Your task to perform on an android device: Open sound settings Image 0: 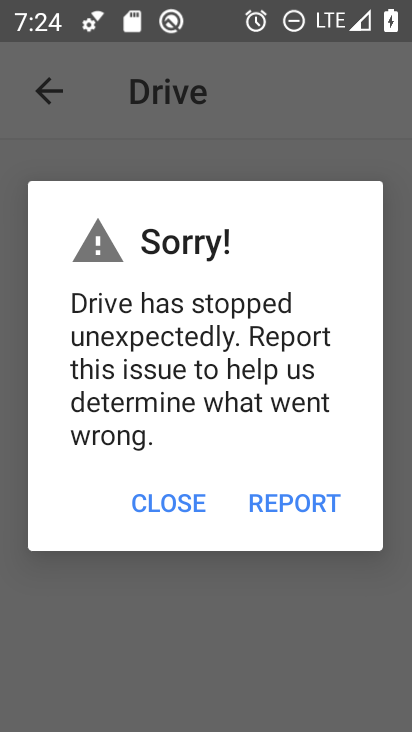
Step 0: press home button
Your task to perform on an android device: Open sound settings Image 1: 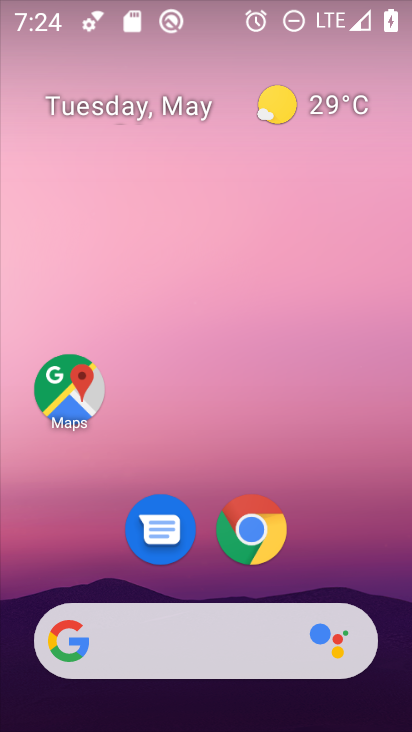
Step 1: drag from (401, 654) to (221, 119)
Your task to perform on an android device: Open sound settings Image 2: 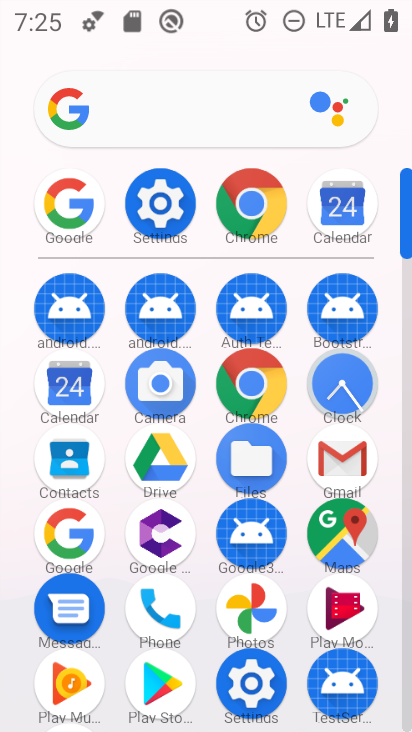
Step 2: click (263, 689)
Your task to perform on an android device: Open sound settings Image 3: 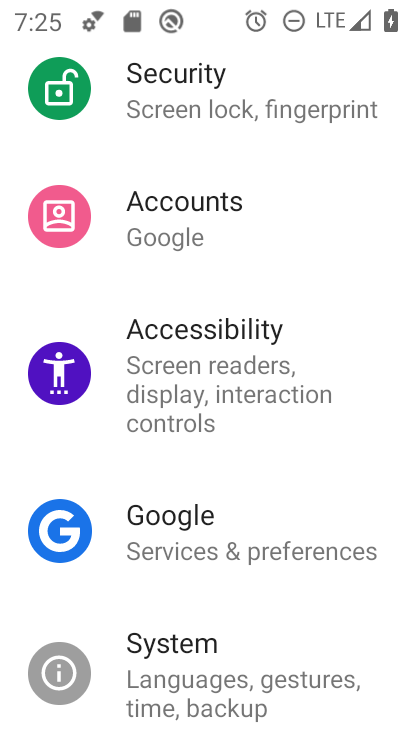
Step 3: drag from (224, 644) to (284, 139)
Your task to perform on an android device: Open sound settings Image 4: 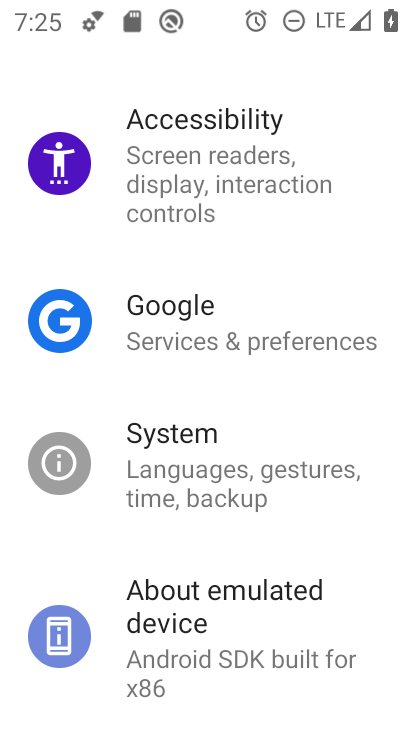
Step 4: drag from (232, 182) to (165, 654)
Your task to perform on an android device: Open sound settings Image 5: 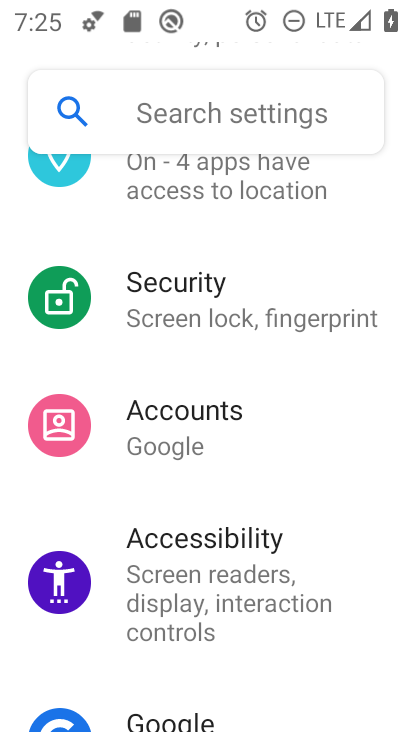
Step 5: drag from (189, 271) to (190, 690)
Your task to perform on an android device: Open sound settings Image 6: 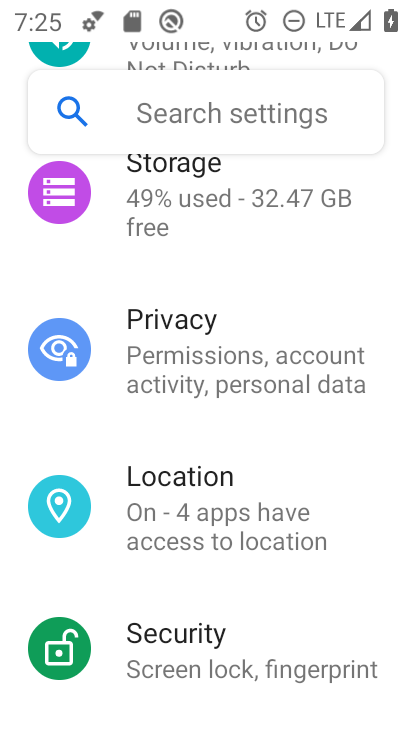
Step 6: drag from (203, 214) to (173, 655)
Your task to perform on an android device: Open sound settings Image 7: 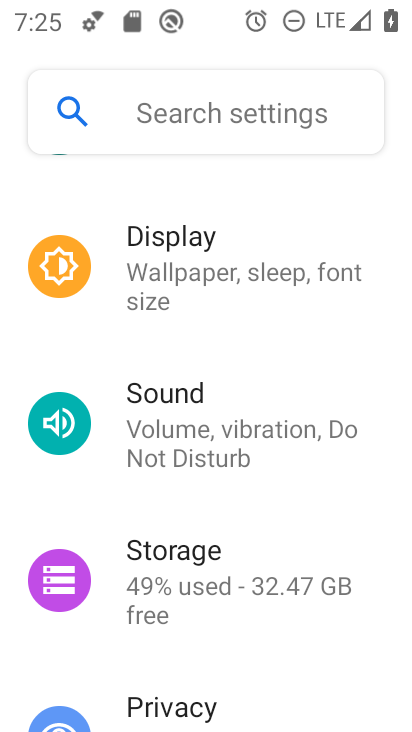
Step 7: click (194, 448)
Your task to perform on an android device: Open sound settings Image 8: 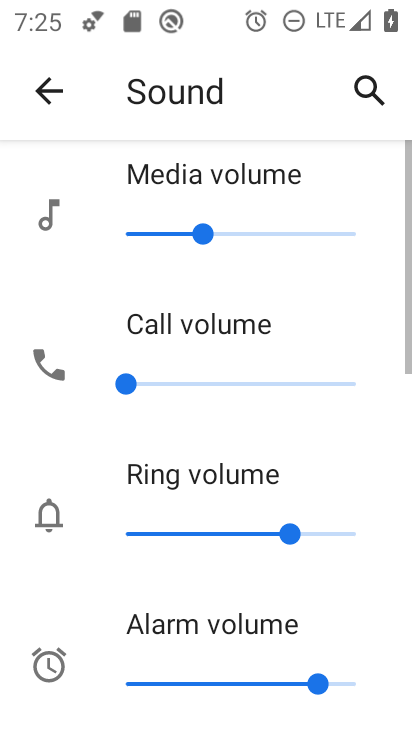
Step 8: task complete